Your task to perform on an android device: make emails show in primary in the gmail app Image 0: 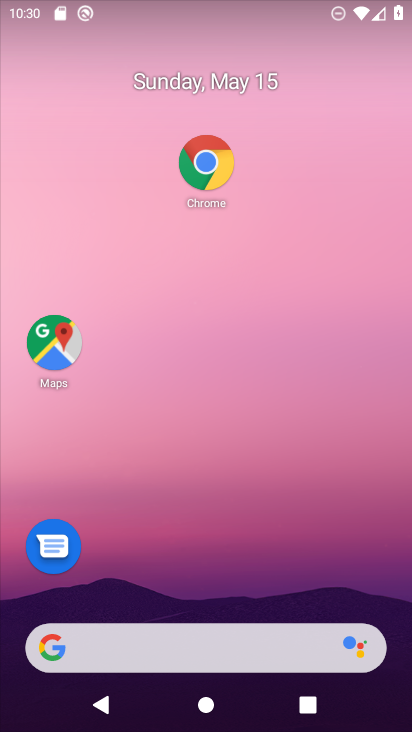
Step 0: drag from (303, 555) to (331, 217)
Your task to perform on an android device: make emails show in primary in the gmail app Image 1: 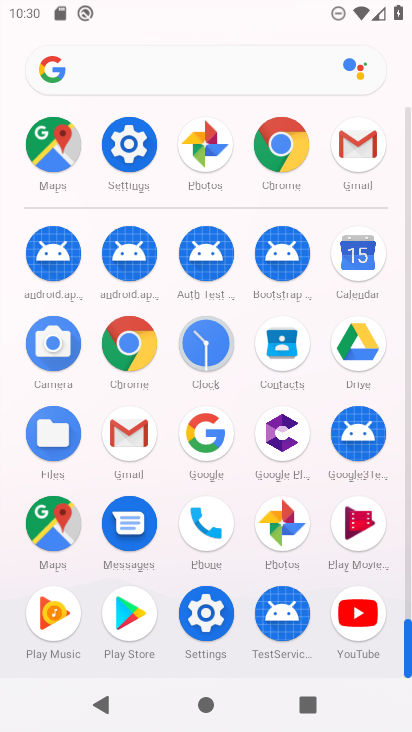
Step 1: click (350, 145)
Your task to perform on an android device: make emails show in primary in the gmail app Image 2: 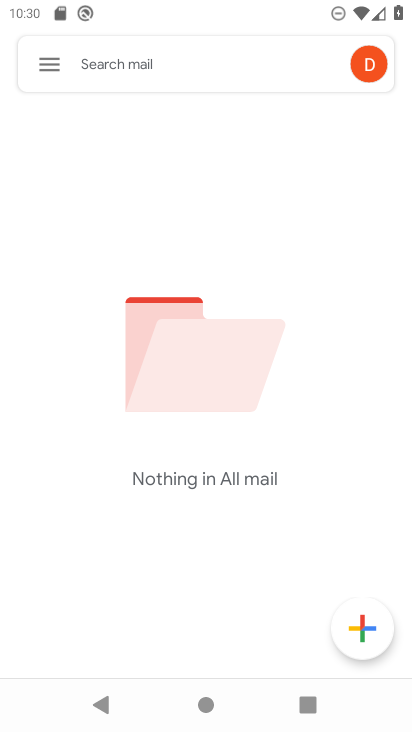
Step 2: click (52, 61)
Your task to perform on an android device: make emails show in primary in the gmail app Image 3: 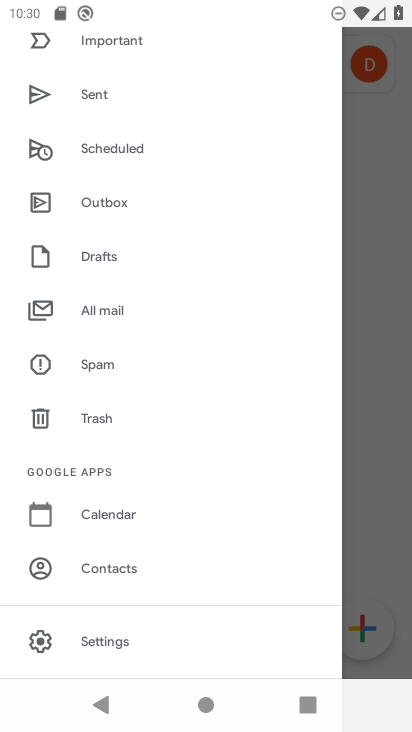
Step 3: click (102, 642)
Your task to perform on an android device: make emails show in primary in the gmail app Image 4: 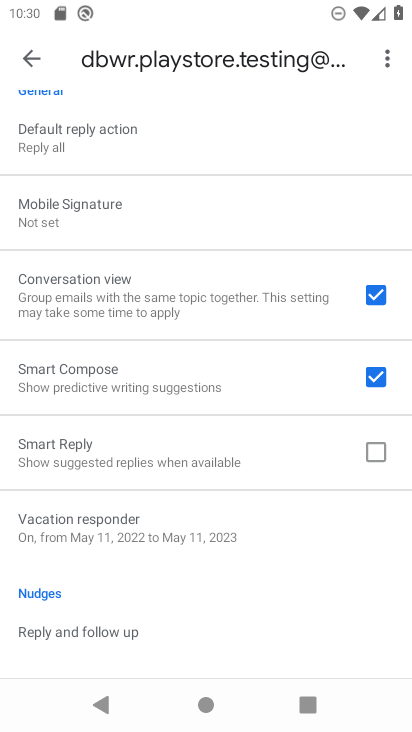
Step 4: task complete